Your task to perform on an android device: open device folders in google photos Image 0: 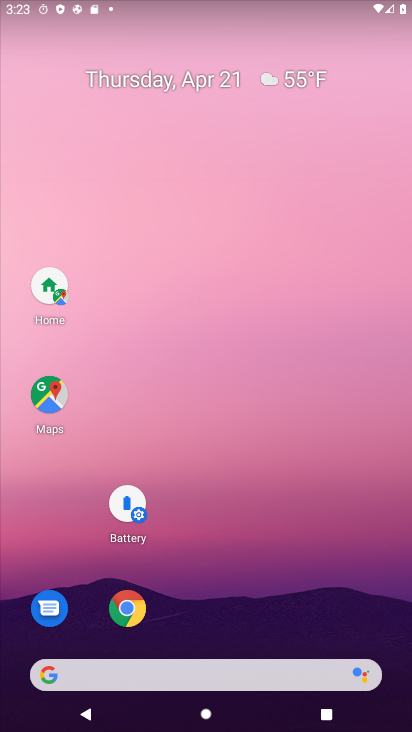
Step 0: drag from (283, 546) to (260, 54)
Your task to perform on an android device: open device folders in google photos Image 1: 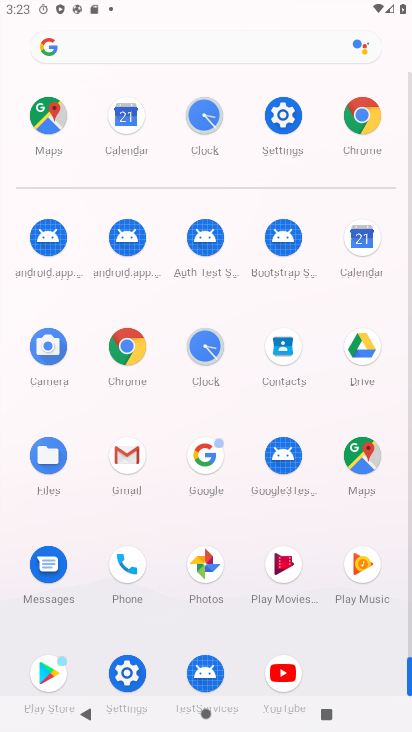
Step 1: click (214, 573)
Your task to perform on an android device: open device folders in google photos Image 2: 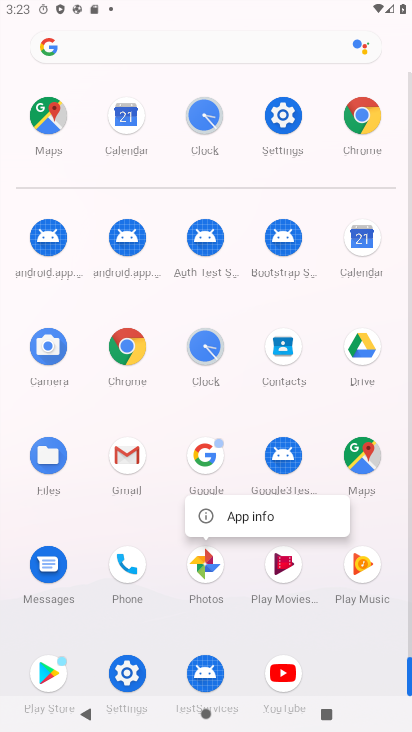
Step 2: click (206, 580)
Your task to perform on an android device: open device folders in google photos Image 3: 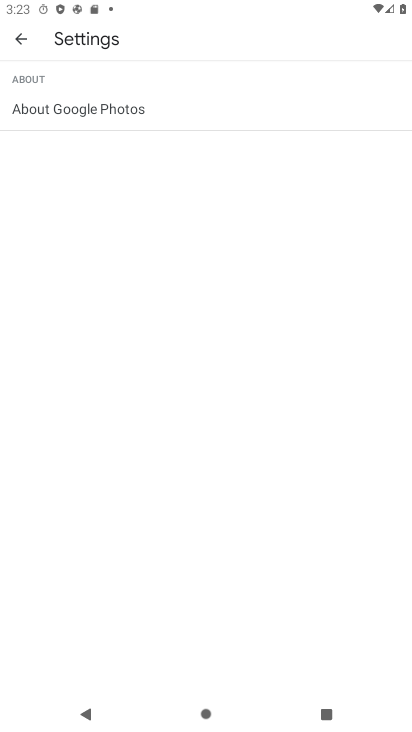
Step 3: click (12, 37)
Your task to perform on an android device: open device folders in google photos Image 4: 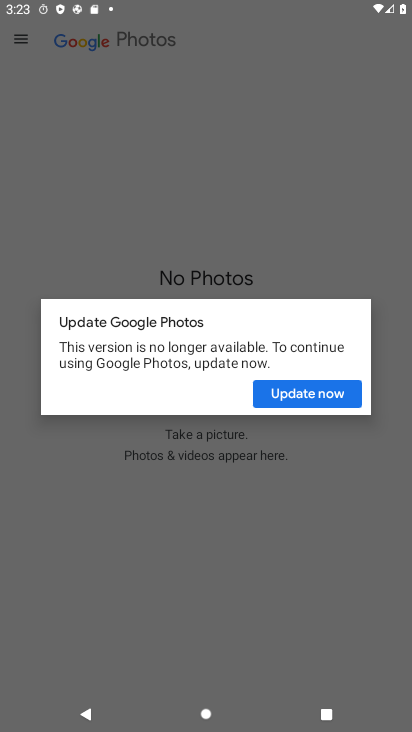
Step 4: click (286, 394)
Your task to perform on an android device: open device folders in google photos Image 5: 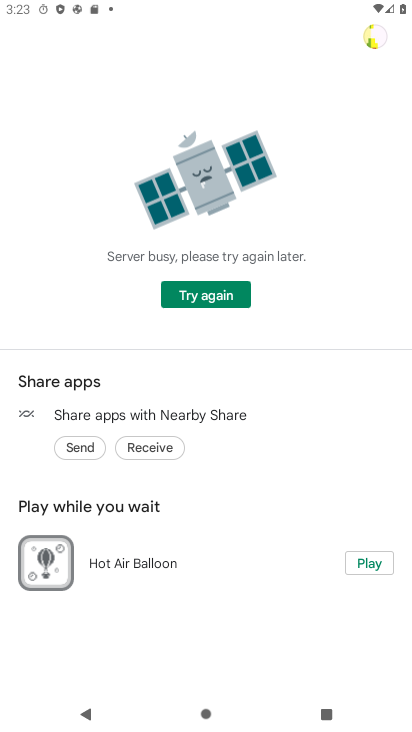
Step 5: click (218, 290)
Your task to perform on an android device: open device folders in google photos Image 6: 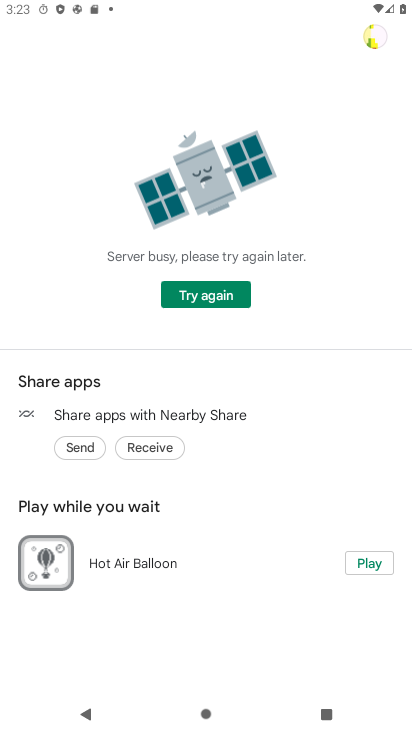
Step 6: click (218, 289)
Your task to perform on an android device: open device folders in google photos Image 7: 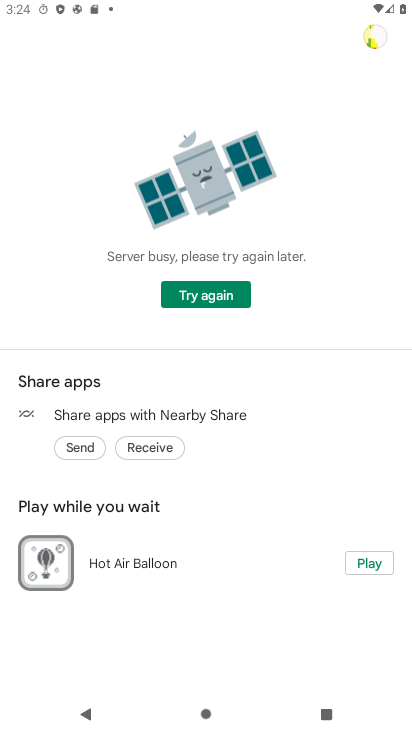
Step 7: click (222, 290)
Your task to perform on an android device: open device folders in google photos Image 8: 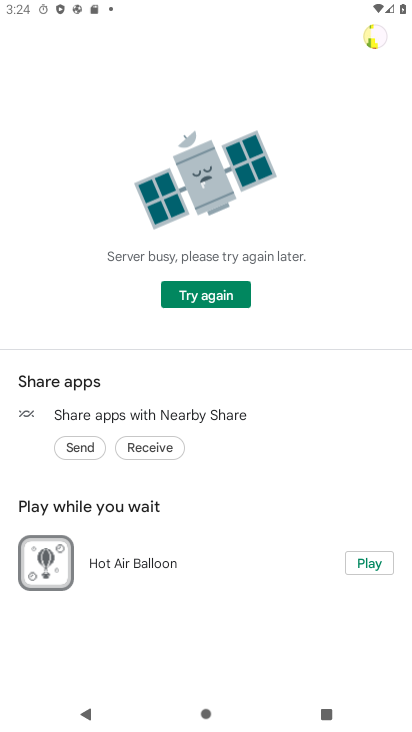
Step 8: task complete